Your task to perform on an android device: set the stopwatch Image 0: 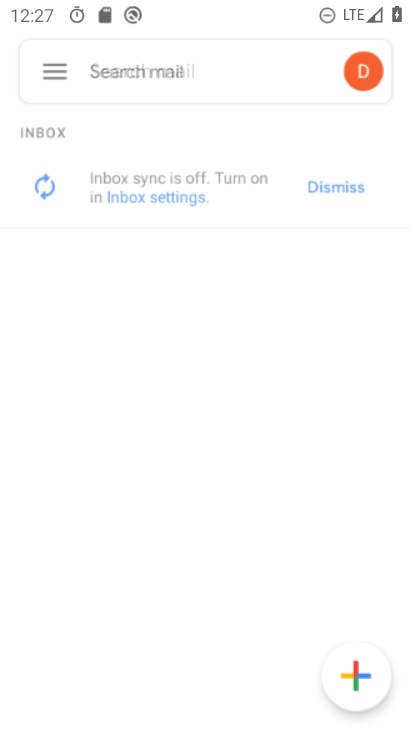
Step 0: drag from (202, 610) to (305, 255)
Your task to perform on an android device: set the stopwatch Image 1: 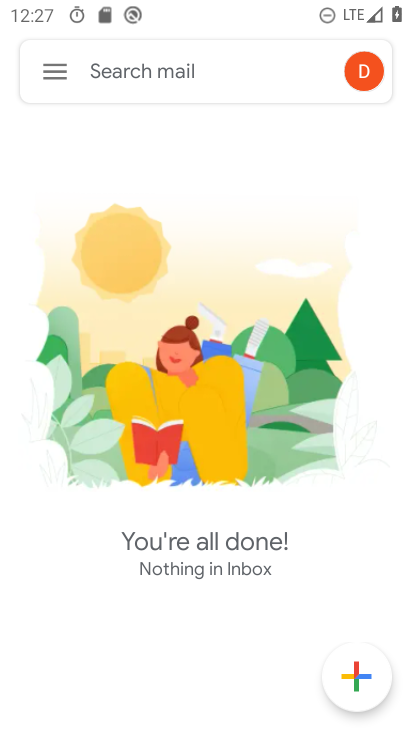
Step 1: drag from (196, 653) to (257, 120)
Your task to perform on an android device: set the stopwatch Image 2: 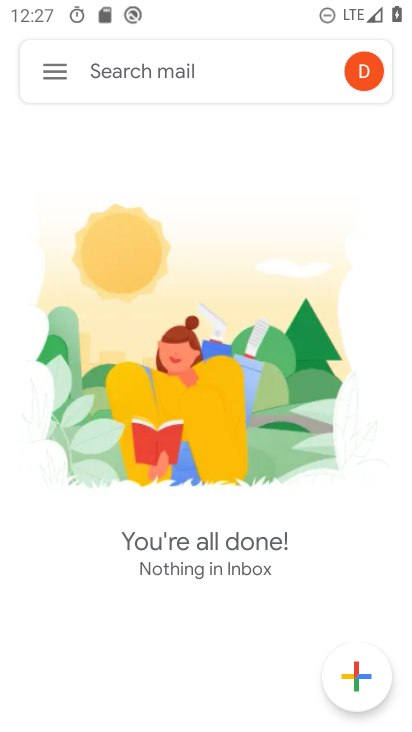
Step 2: click (74, 71)
Your task to perform on an android device: set the stopwatch Image 3: 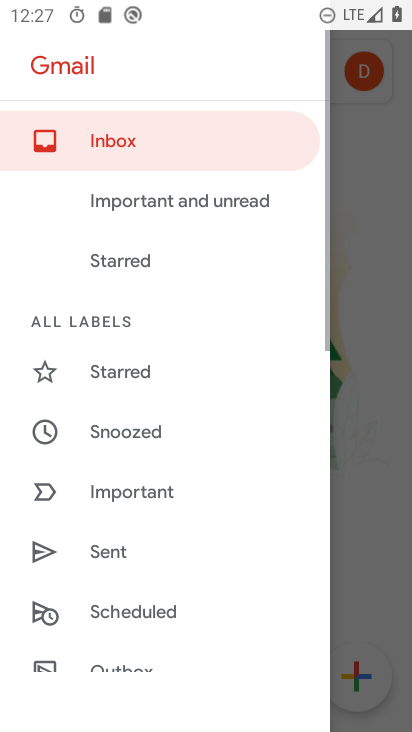
Step 3: drag from (189, 606) to (198, 125)
Your task to perform on an android device: set the stopwatch Image 4: 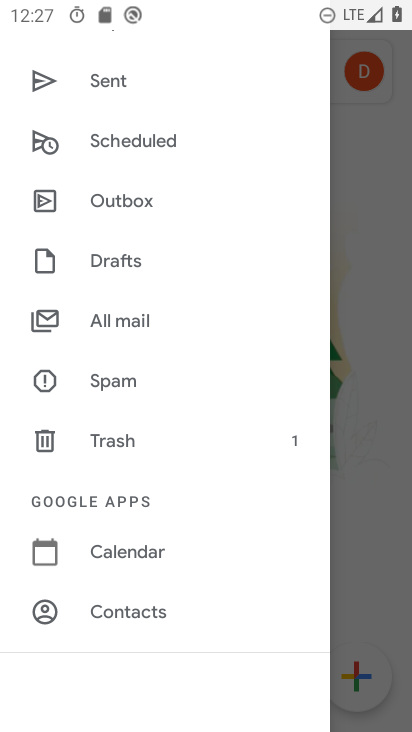
Step 4: press home button
Your task to perform on an android device: set the stopwatch Image 5: 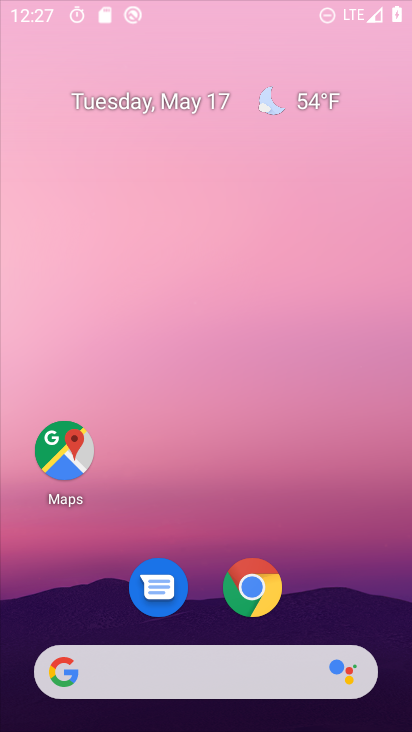
Step 5: drag from (202, 592) to (241, 228)
Your task to perform on an android device: set the stopwatch Image 6: 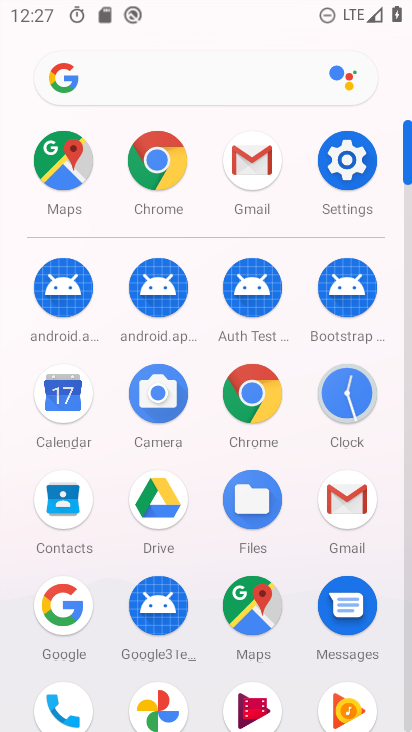
Step 6: click (359, 388)
Your task to perform on an android device: set the stopwatch Image 7: 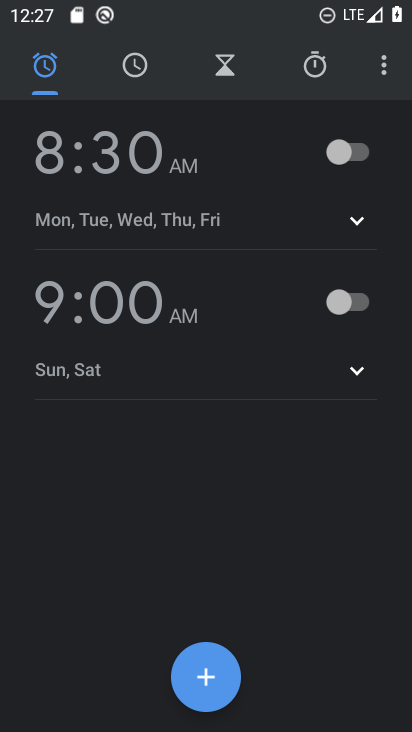
Step 7: click (304, 78)
Your task to perform on an android device: set the stopwatch Image 8: 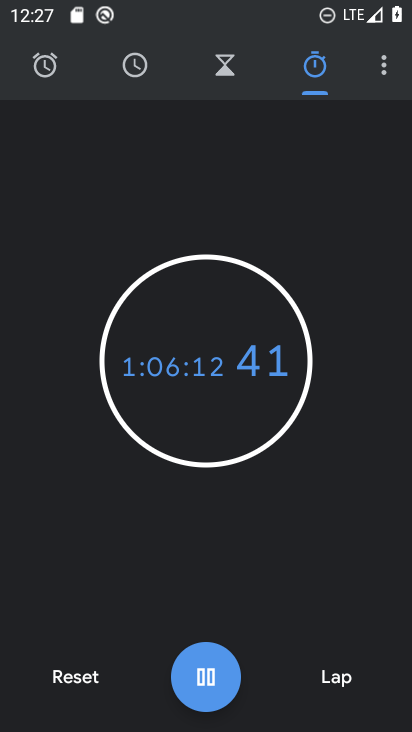
Step 8: click (67, 681)
Your task to perform on an android device: set the stopwatch Image 9: 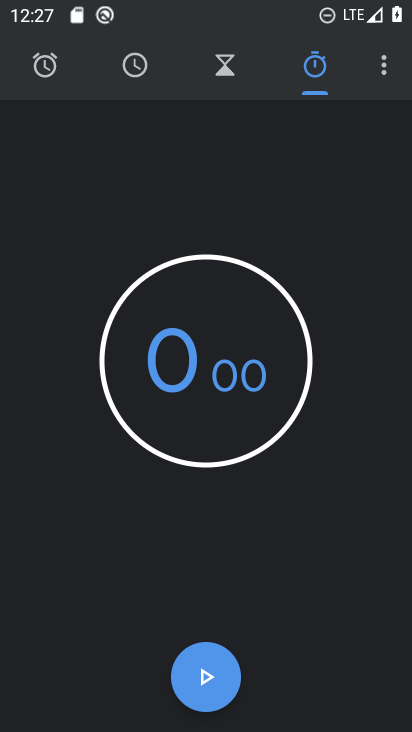
Step 9: click (222, 667)
Your task to perform on an android device: set the stopwatch Image 10: 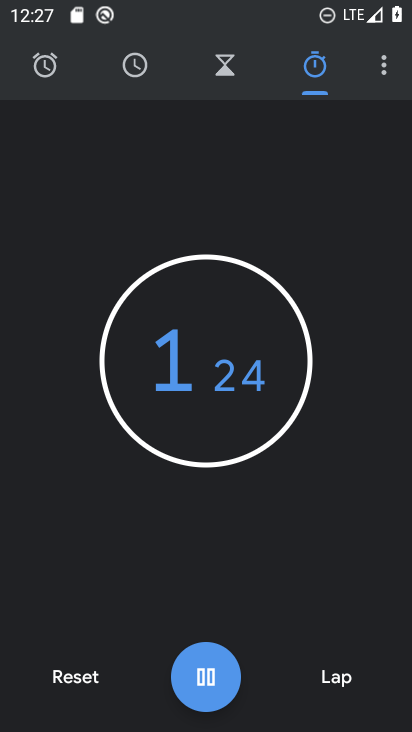
Step 10: task complete